Your task to perform on an android device: turn notification dots off Image 0: 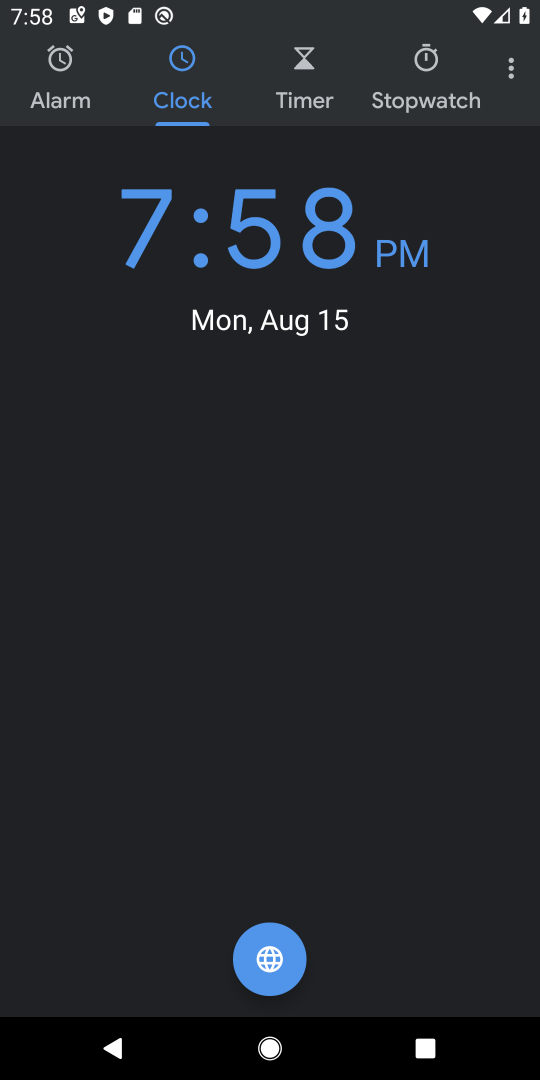
Step 0: press home button
Your task to perform on an android device: turn notification dots off Image 1: 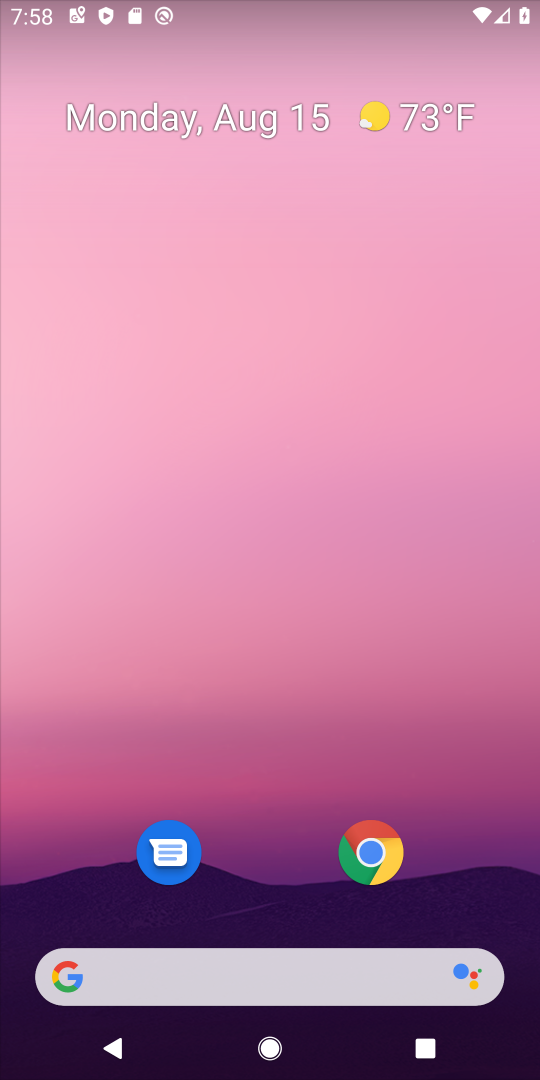
Step 1: drag from (188, 986) to (170, 136)
Your task to perform on an android device: turn notification dots off Image 2: 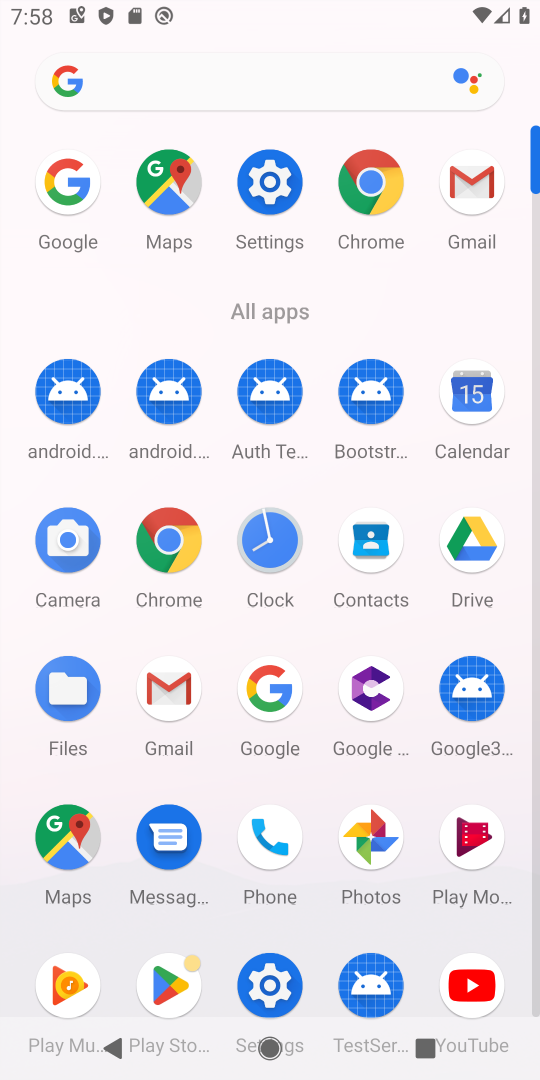
Step 2: click (267, 183)
Your task to perform on an android device: turn notification dots off Image 3: 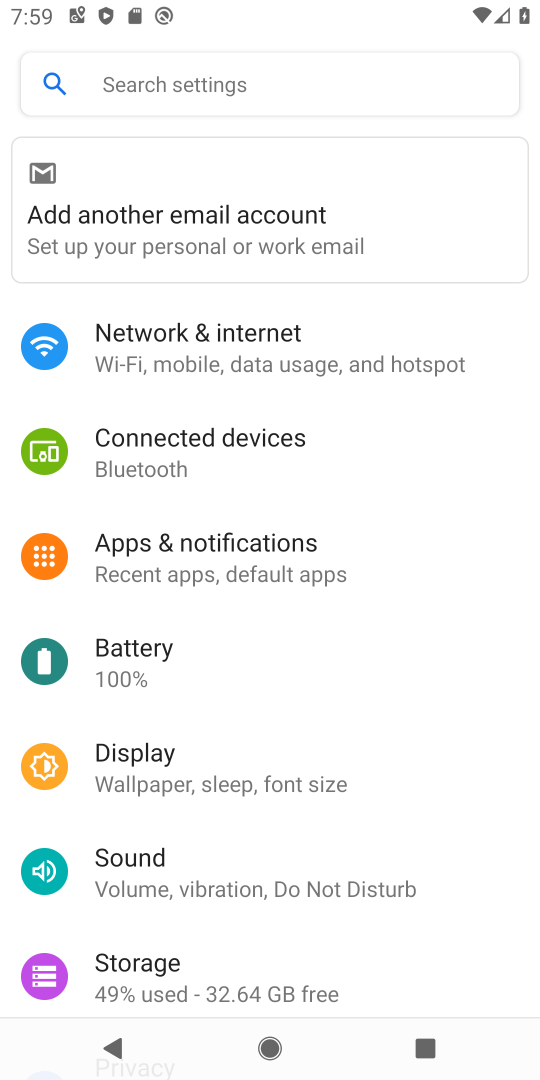
Step 3: click (195, 542)
Your task to perform on an android device: turn notification dots off Image 4: 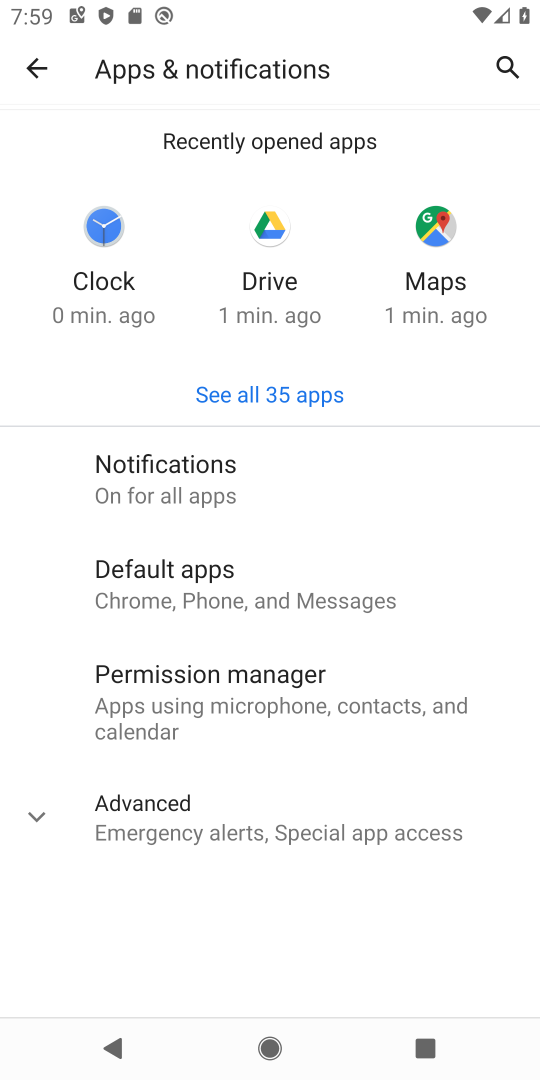
Step 4: click (168, 467)
Your task to perform on an android device: turn notification dots off Image 5: 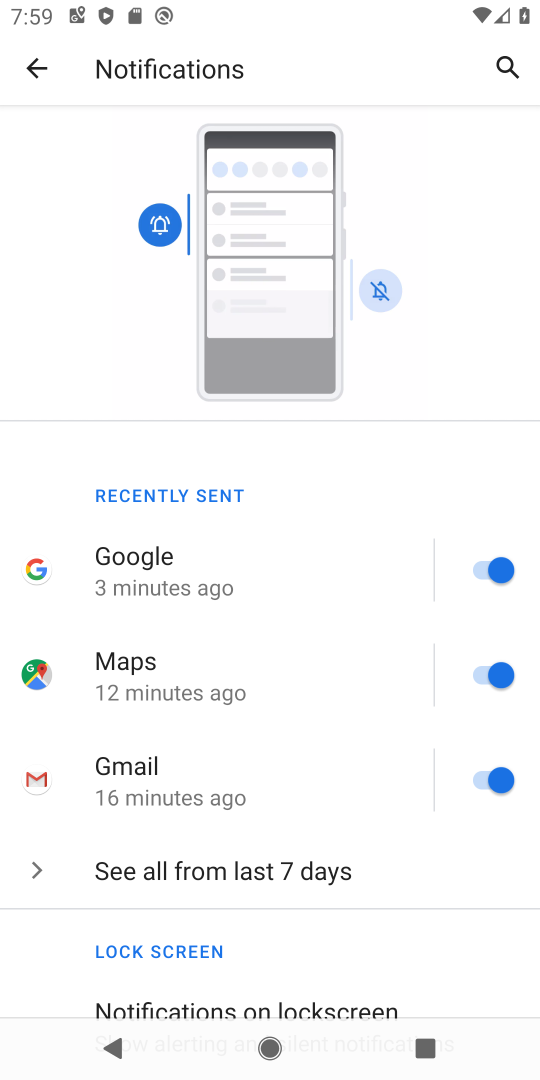
Step 5: drag from (198, 838) to (301, 659)
Your task to perform on an android device: turn notification dots off Image 6: 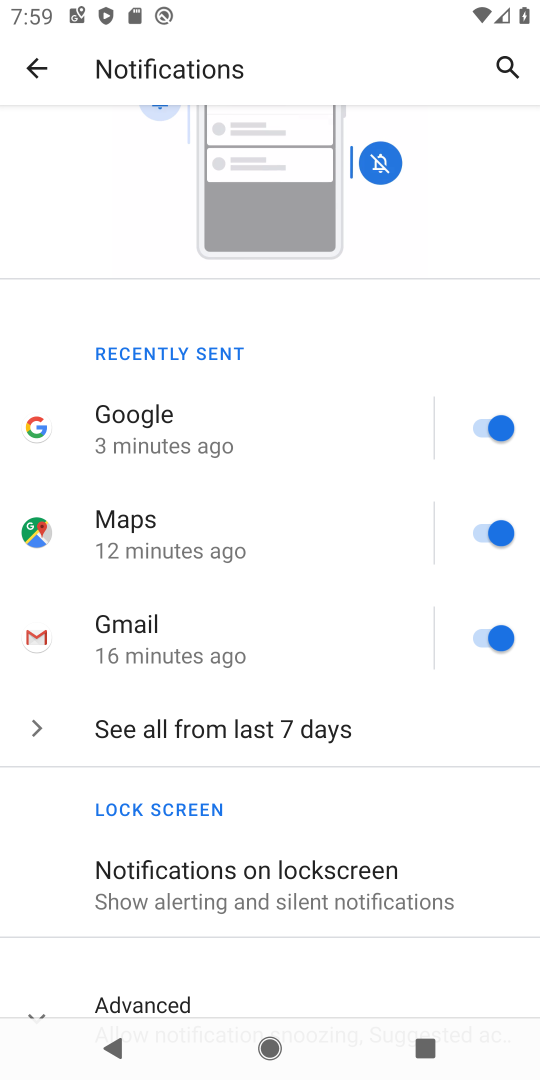
Step 6: drag from (262, 944) to (368, 753)
Your task to perform on an android device: turn notification dots off Image 7: 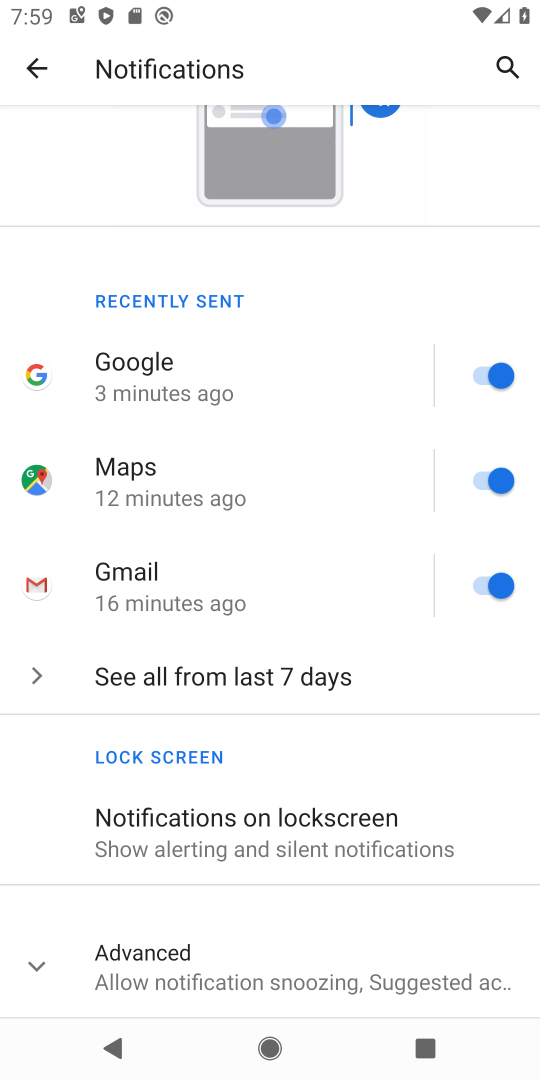
Step 7: click (278, 985)
Your task to perform on an android device: turn notification dots off Image 8: 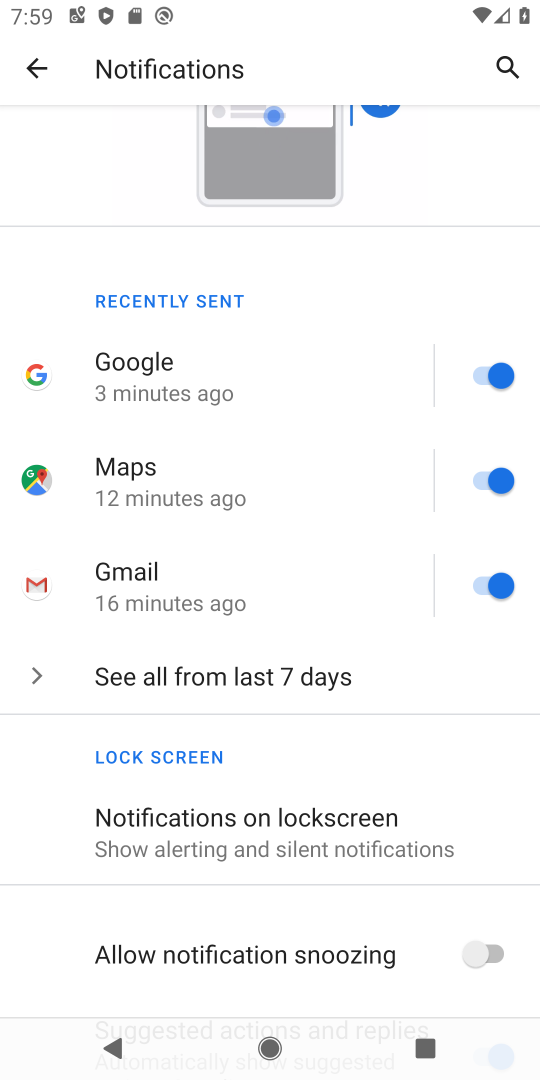
Step 8: drag from (233, 909) to (362, 713)
Your task to perform on an android device: turn notification dots off Image 9: 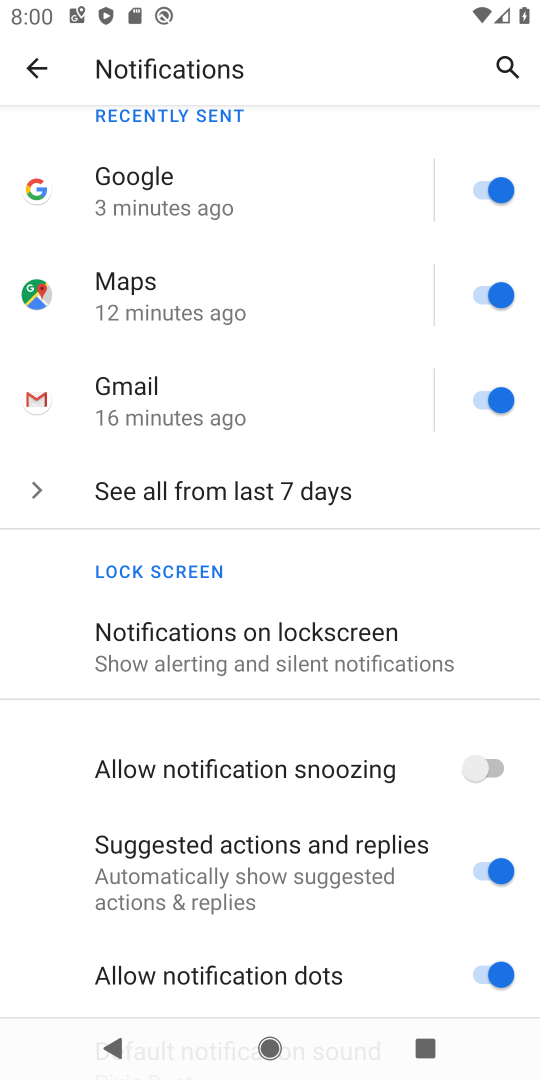
Step 9: click (486, 977)
Your task to perform on an android device: turn notification dots off Image 10: 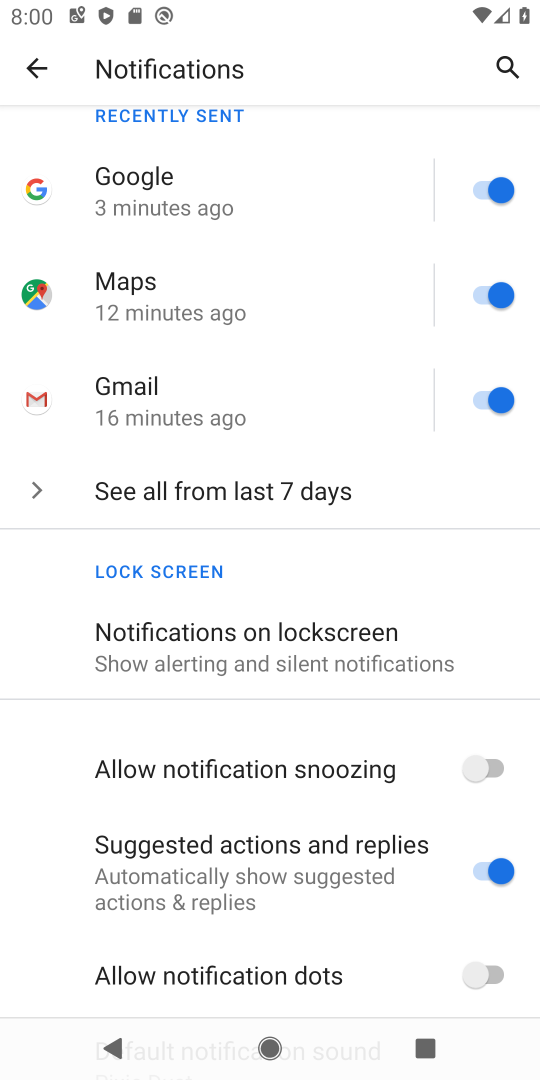
Step 10: task complete